Your task to perform on an android device: Go to location settings Image 0: 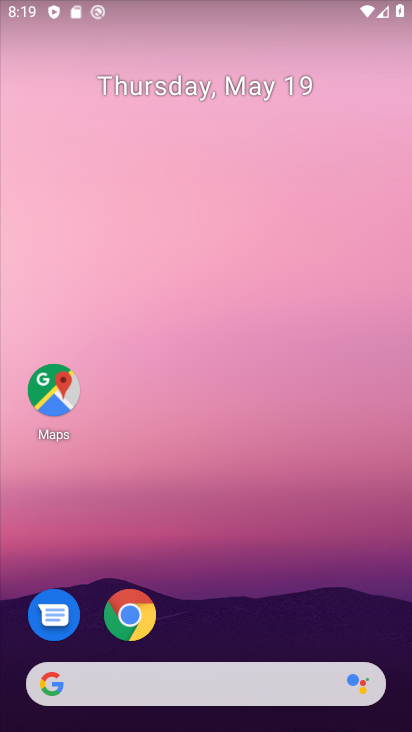
Step 0: drag from (272, 623) to (261, 20)
Your task to perform on an android device: Go to location settings Image 1: 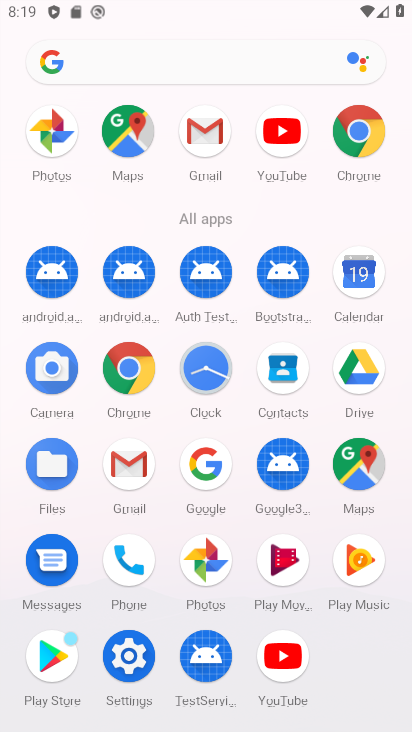
Step 1: click (136, 638)
Your task to perform on an android device: Go to location settings Image 2: 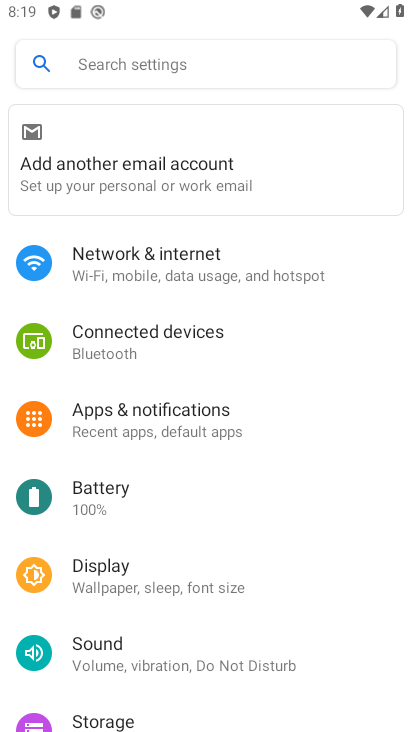
Step 2: drag from (258, 649) to (238, 156)
Your task to perform on an android device: Go to location settings Image 3: 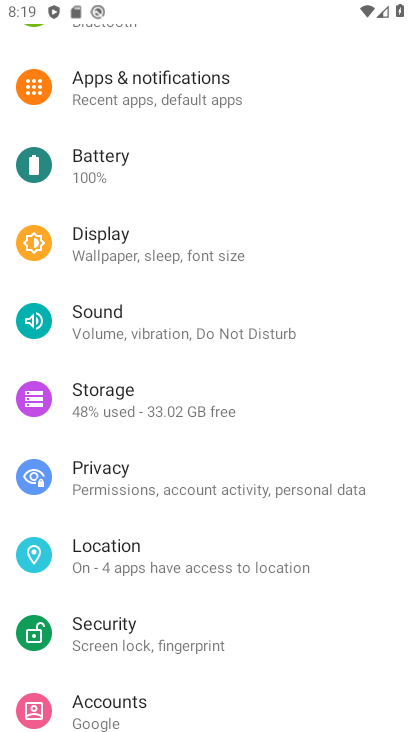
Step 3: click (156, 570)
Your task to perform on an android device: Go to location settings Image 4: 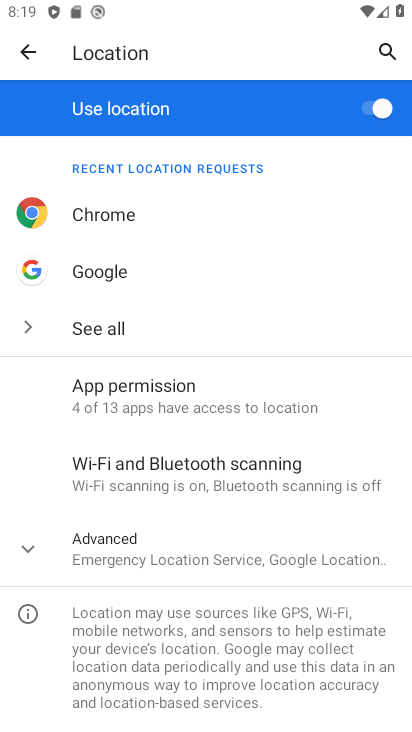
Step 4: drag from (209, 563) to (176, 103)
Your task to perform on an android device: Go to location settings Image 5: 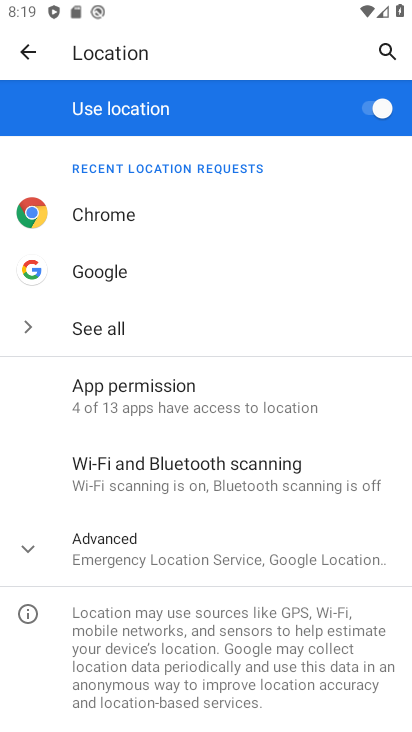
Step 5: click (275, 556)
Your task to perform on an android device: Go to location settings Image 6: 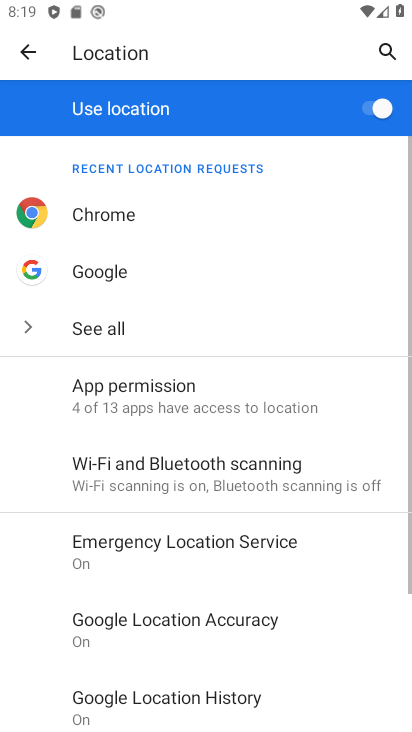
Step 6: task complete